Your task to perform on an android device: Search for the best gaming monitor on Best Buy Image 0: 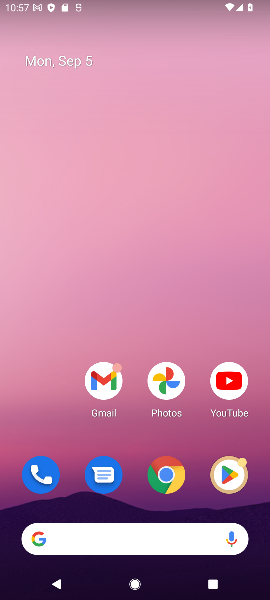
Step 0: click (154, 533)
Your task to perform on an android device: Search for the best gaming monitor on Best Buy Image 1: 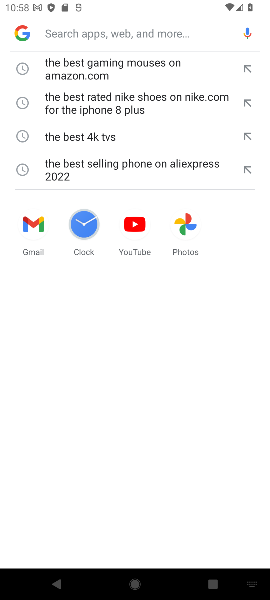
Step 1: type " the best gaming monitor on Best Buy"
Your task to perform on an android device: Search for the best gaming monitor on Best Buy Image 2: 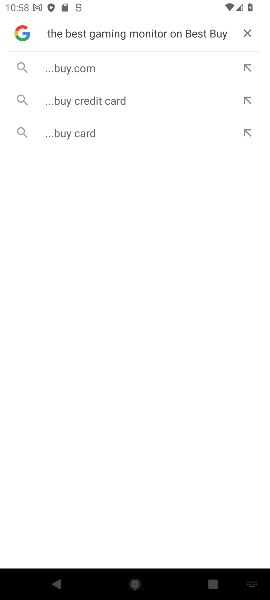
Step 2: click (76, 62)
Your task to perform on an android device: Search for the best gaming monitor on Best Buy Image 3: 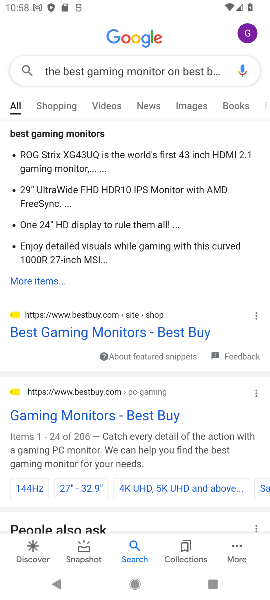
Step 3: task complete